Your task to perform on an android device: Go to Android settings Image 0: 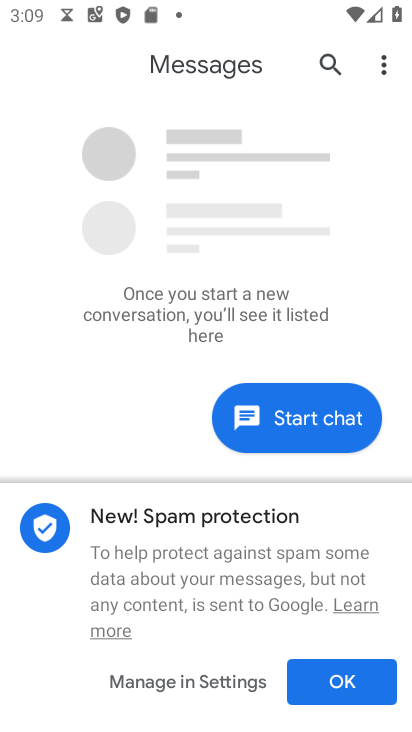
Step 0: press home button
Your task to perform on an android device: Go to Android settings Image 1: 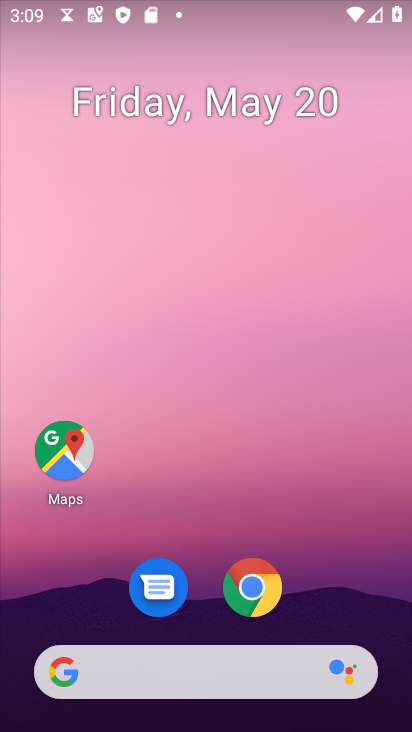
Step 1: drag from (359, 603) to (283, 224)
Your task to perform on an android device: Go to Android settings Image 2: 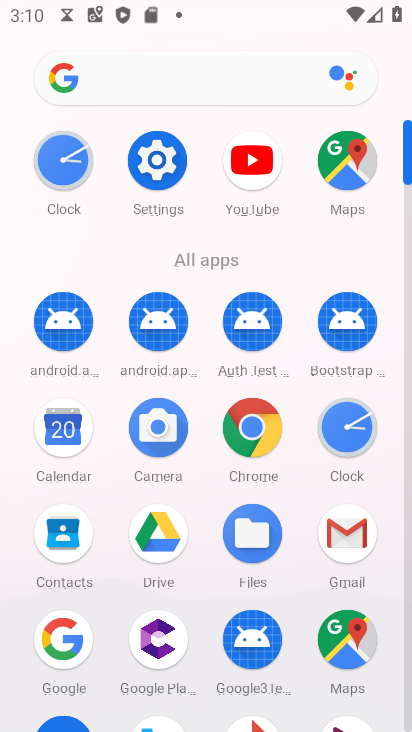
Step 2: click (158, 174)
Your task to perform on an android device: Go to Android settings Image 3: 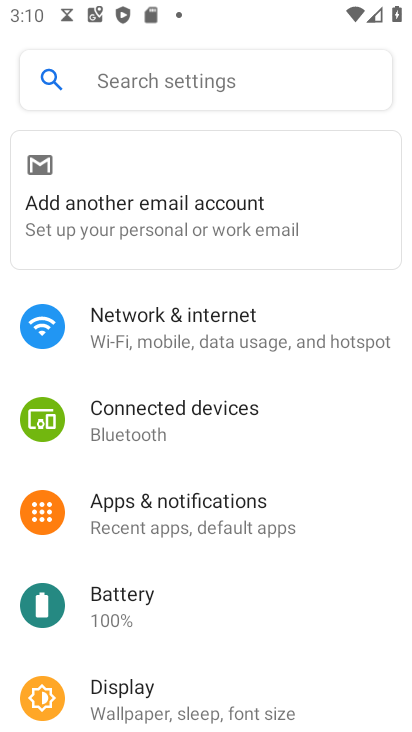
Step 3: task complete